Your task to perform on an android device: Go to Amazon Image 0: 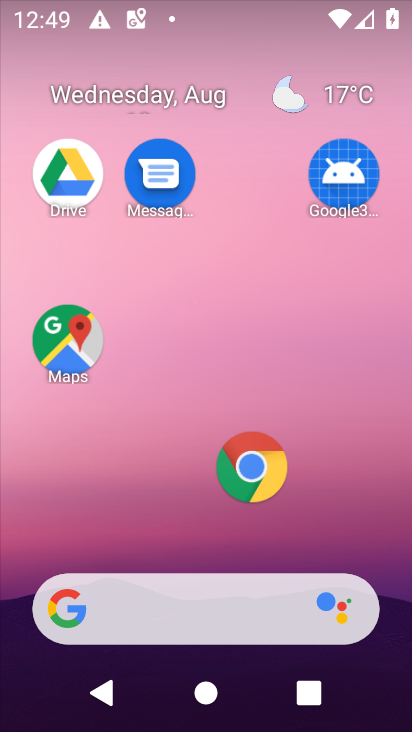
Step 0: click (151, 605)
Your task to perform on an android device: Go to Amazon Image 1: 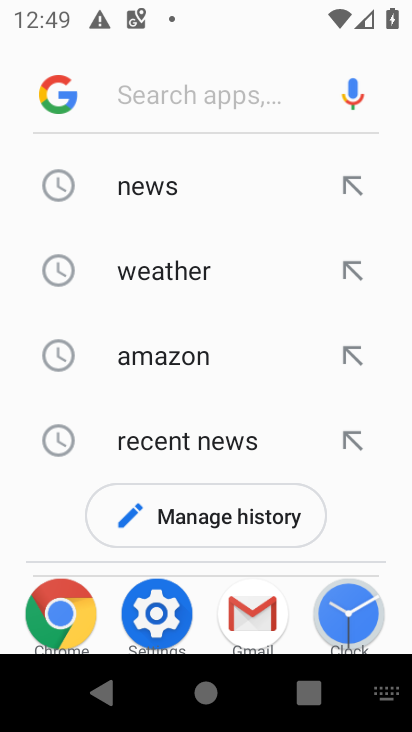
Step 1: click (156, 359)
Your task to perform on an android device: Go to Amazon Image 2: 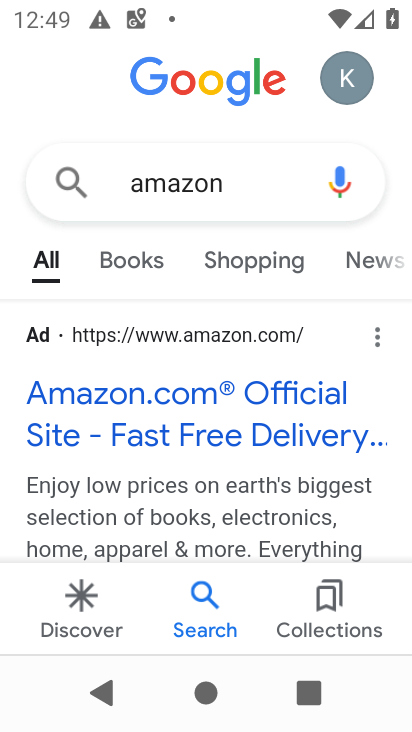
Step 2: task complete